Your task to perform on an android device: turn off sleep mode Image 0: 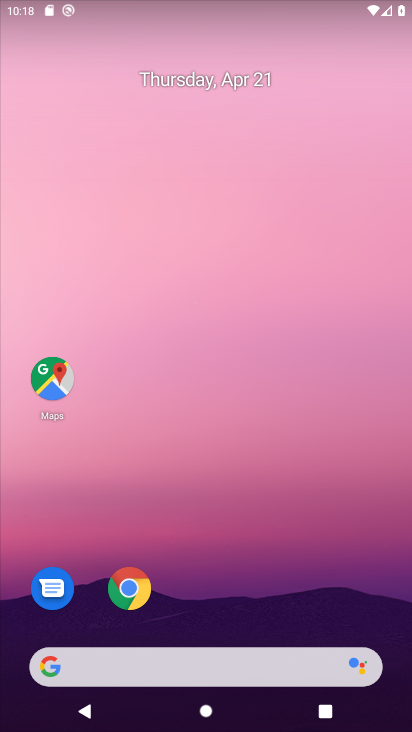
Step 0: drag from (381, 4) to (318, 544)
Your task to perform on an android device: turn off sleep mode Image 1: 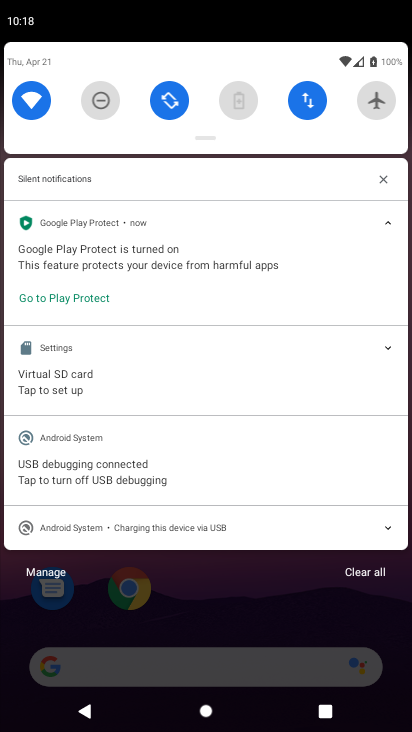
Step 1: drag from (209, 139) to (170, 571)
Your task to perform on an android device: turn off sleep mode Image 2: 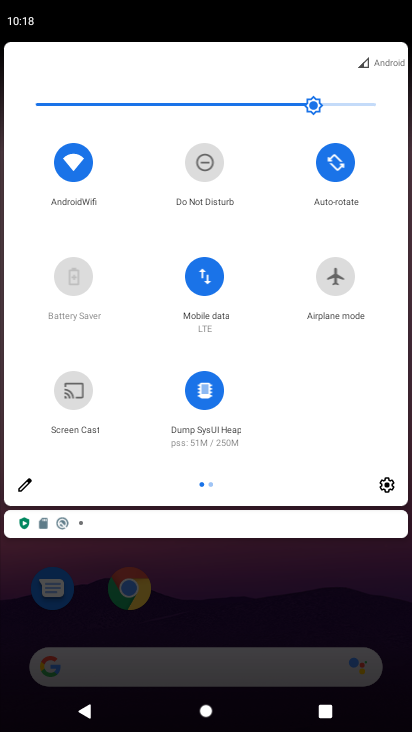
Step 2: click (26, 480)
Your task to perform on an android device: turn off sleep mode Image 3: 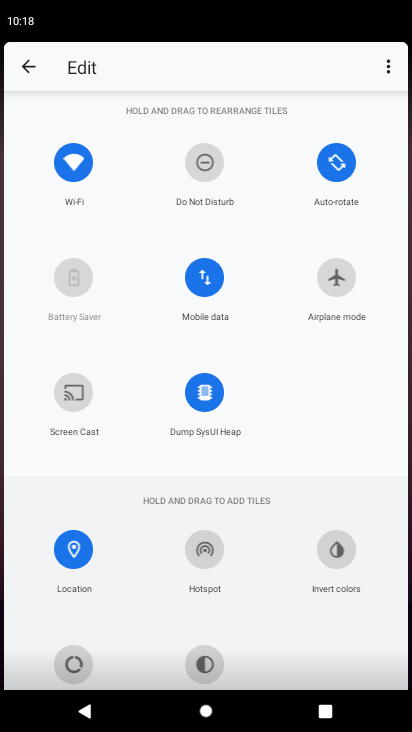
Step 3: task complete